Your task to perform on an android device: What's the weather? Image 0: 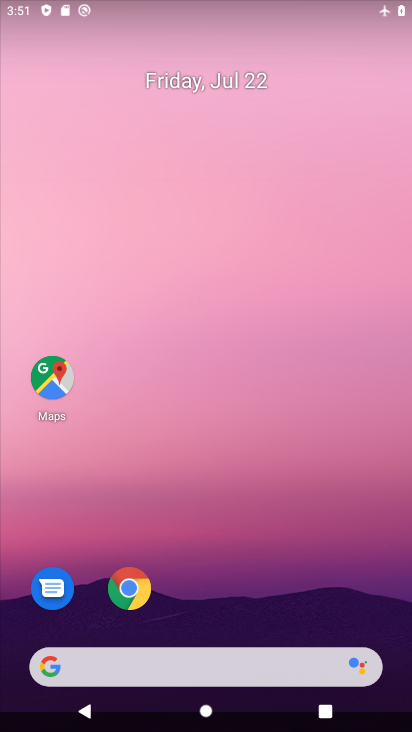
Step 0: drag from (279, 609) to (240, 212)
Your task to perform on an android device: What's the weather? Image 1: 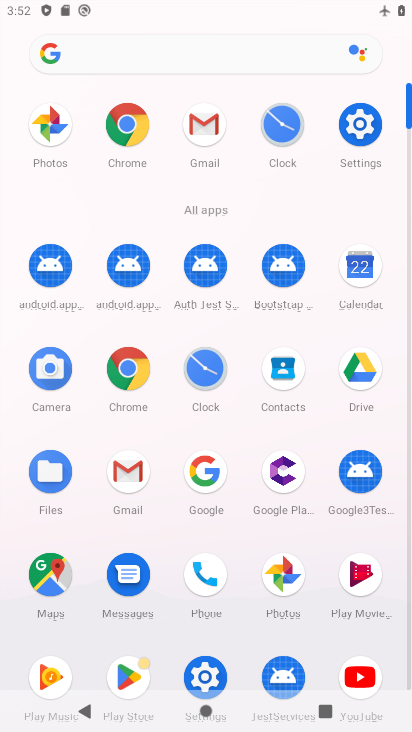
Step 1: click (134, 132)
Your task to perform on an android device: What's the weather? Image 2: 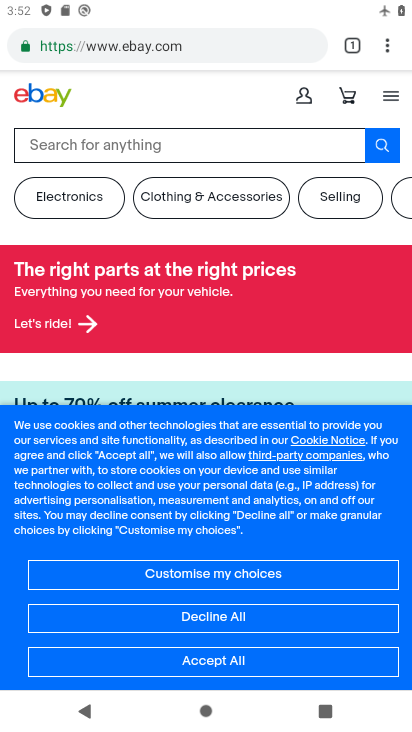
Step 2: click (261, 40)
Your task to perform on an android device: What's the weather? Image 3: 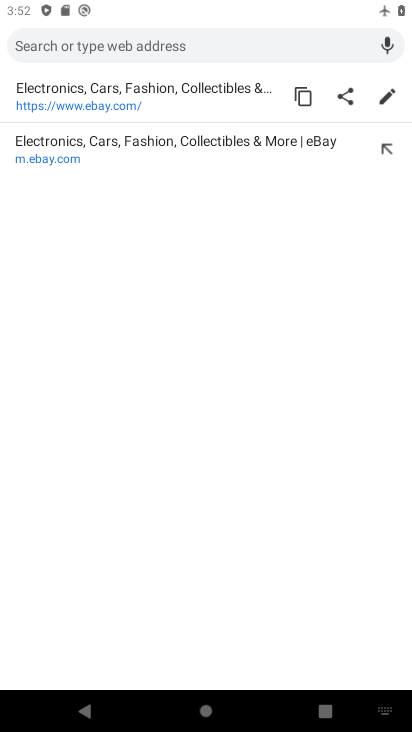
Step 3: click (308, 55)
Your task to perform on an android device: What's the weather? Image 4: 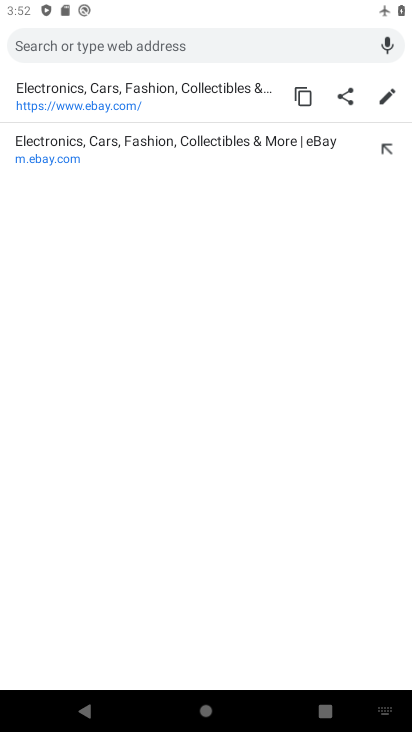
Step 4: type "What's the weather?"
Your task to perform on an android device: What's the weather? Image 5: 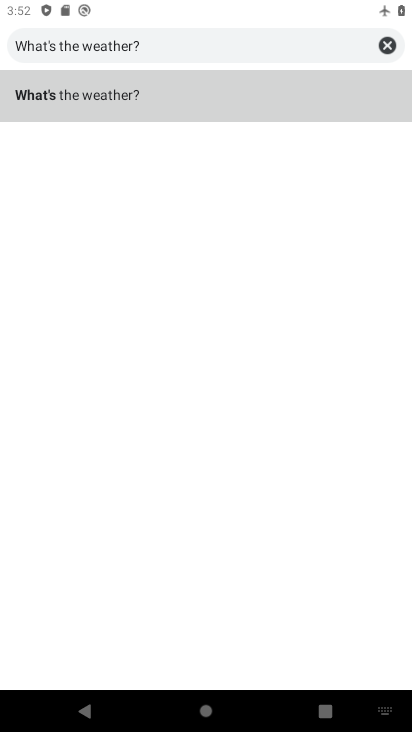
Step 5: click (161, 84)
Your task to perform on an android device: What's the weather? Image 6: 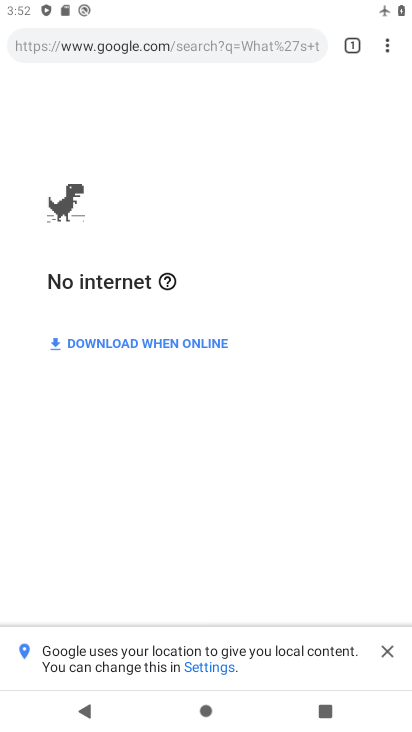
Step 6: task complete